Your task to perform on an android device: Go to display settings Image 0: 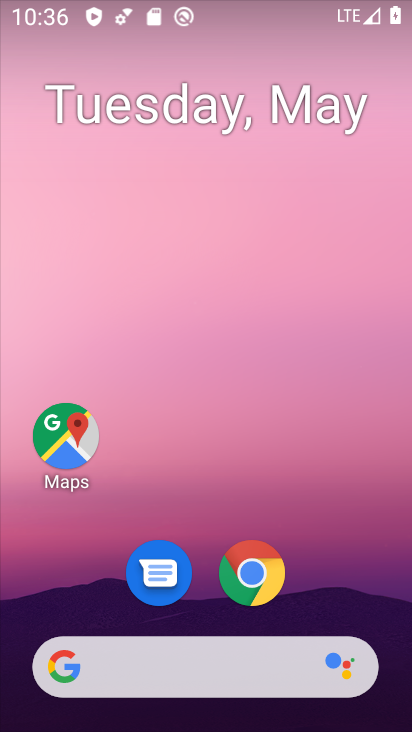
Step 0: drag from (334, 574) to (411, 517)
Your task to perform on an android device: Go to display settings Image 1: 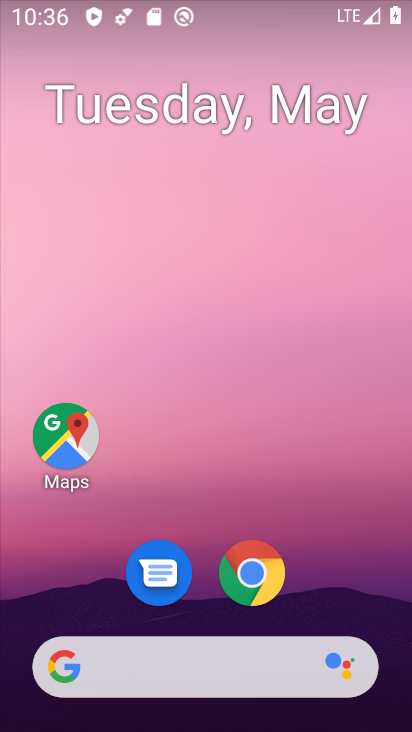
Step 1: drag from (339, 581) to (399, 476)
Your task to perform on an android device: Go to display settings Image 2: 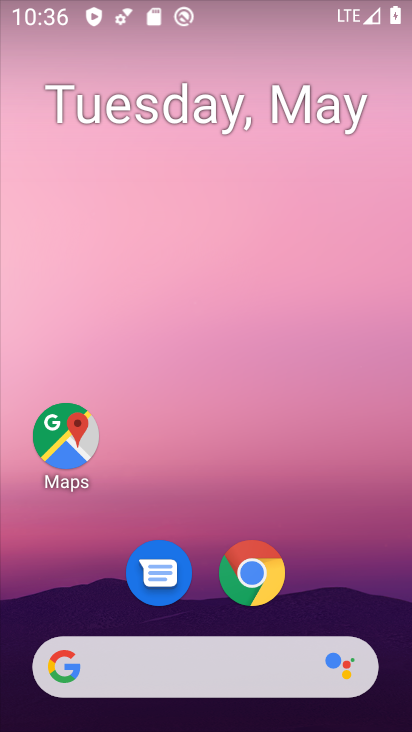
Step 2: drag from (244, 473) to (298, 52)
Your task to perform on an android device: Go to display settings Image 3: 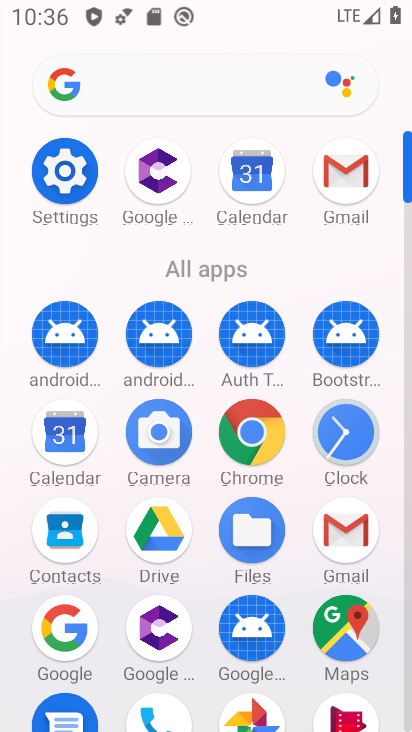
Step 3: click (51, 157)
Your task to perform on an android device: Go to display settings Image 4: 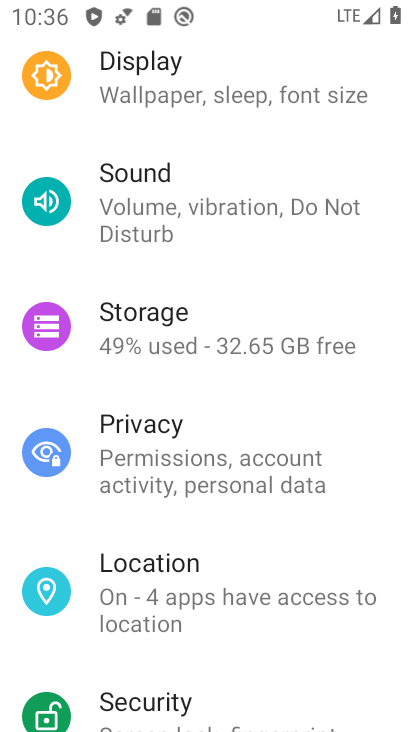
Step 4: click (173, 87)
Your task to perform on an android device: Go to display settings Image 5: 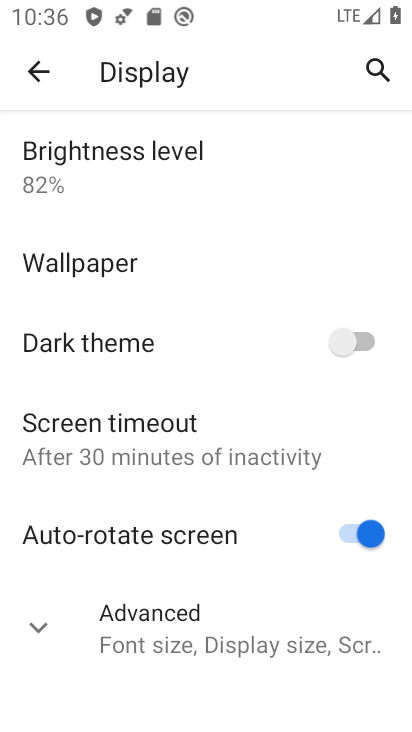
Step 5: task complete